Your task to perform on an android device: search for starred emails in the gmail app Image 0: 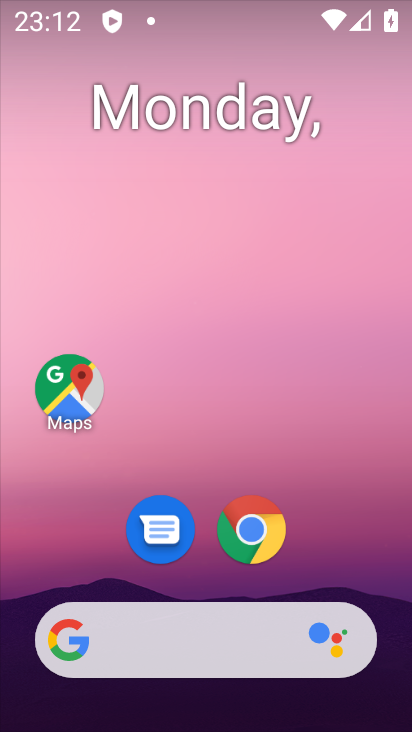
Step 0: drag from (327, 575) to (383, 51)
Your task to perform on an android device: search for starred emails in the gmail app Image 1: 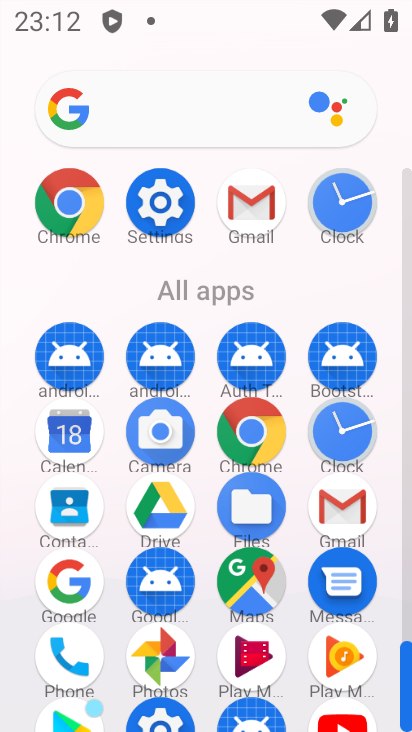
Step 1: click (253, 198)
Your task to perform on an android device: search for starred emails in the gmail app Image 2: 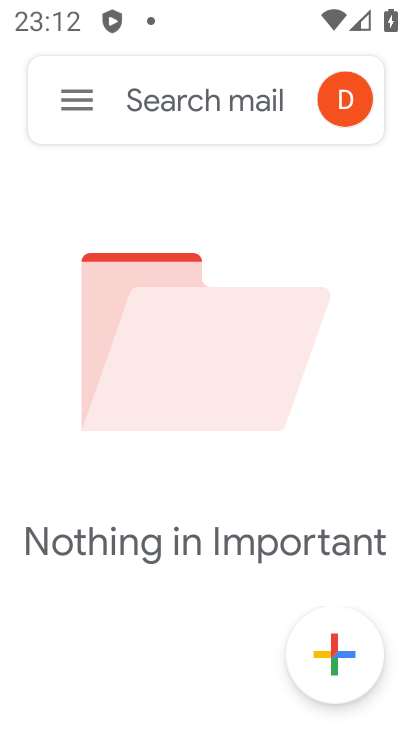
Step 2: click (73, 92)
Your task to perform on an android device: search for starred emails in the gmail app Image 3: 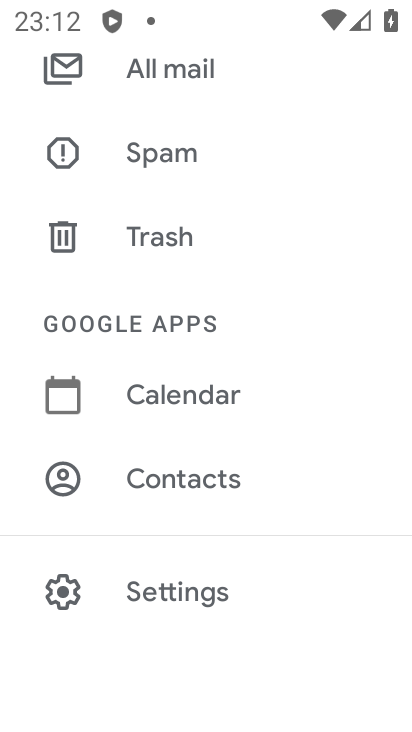
Step 3: drag from (158, 196) to (172, 333)
Your task to perform on an android device: search for starred emails in the gmail app Image 4: 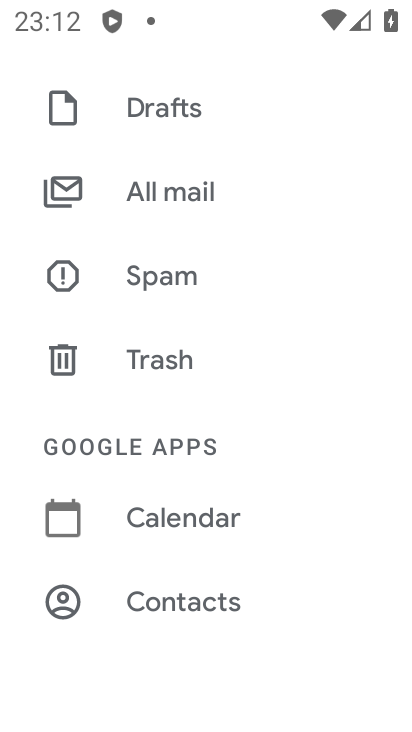
Step 4: drag from (146, 233) to (170, 330)
Your task to perform on an android device: search for starred emails in the gmail app Image 5: 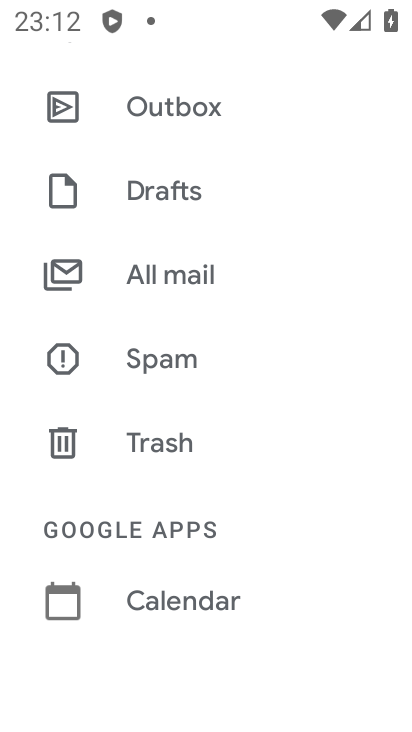
Step 5: drag from (168, 249) to (183, 338)
Your task to perform on an android device: search for starred emails in the gmail app Image 6: 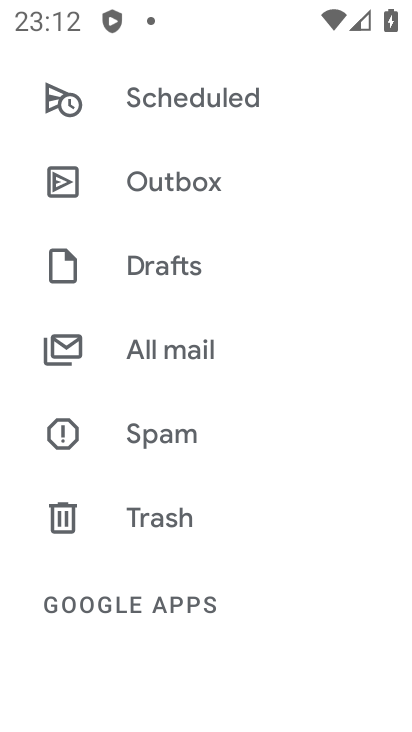
Step 6: drag from (202, 230) to (228, 336)
Your task to perform on an android device: search for starred emails in the gmail app Image 7: 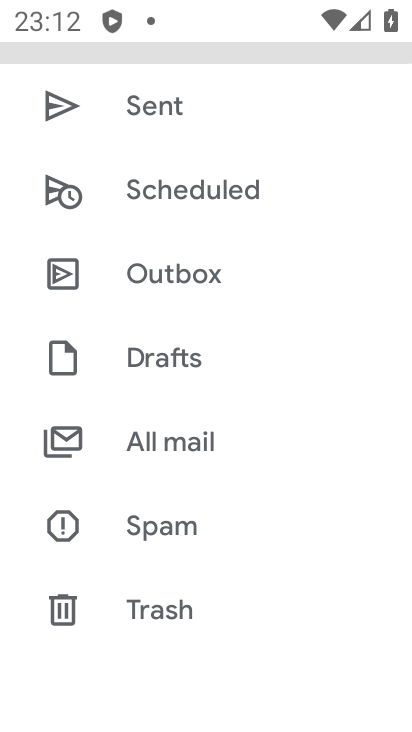
Step 7: drag from (215, 285) to (238, 367)
Your task to perform on an android device: search for starred emails in the gmail app Image 8: 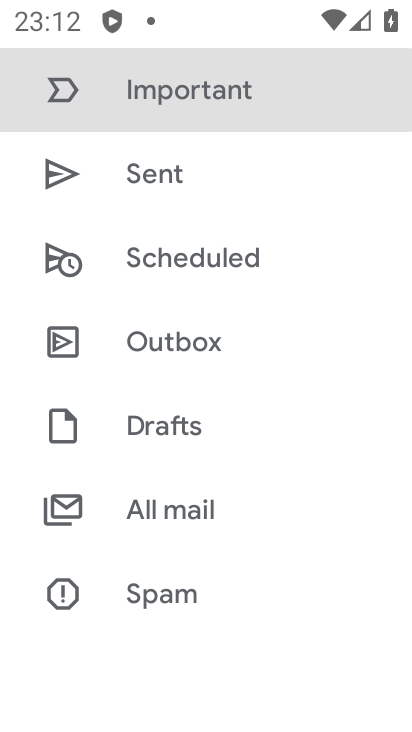
Step 8: drag from (225, 264) to (211, 370)
Your task to perform on an android device: search for starred emails in the gmail app Image 9: 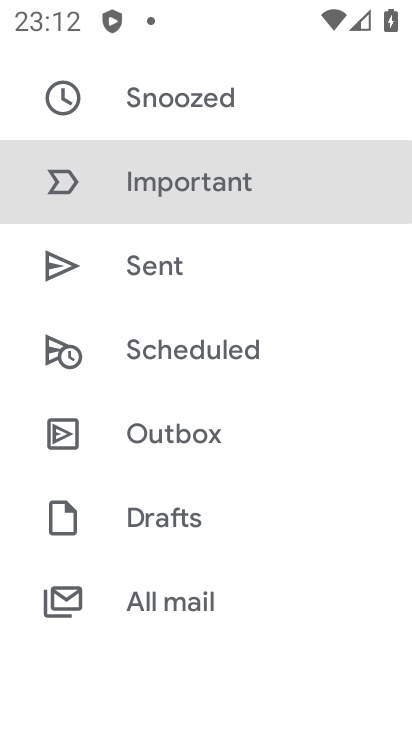
Step 9: drag from (207, 208) to (213, 268)
Your task to perform on an android device: search for starred emails in the gmail app Image 10: 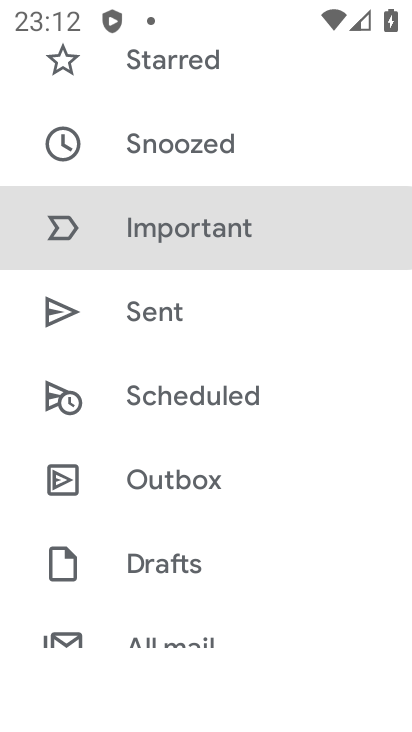
Step 10: click (223, 68)
Your task to perform on an android device: search for starred emails in the gmail app Image 11: 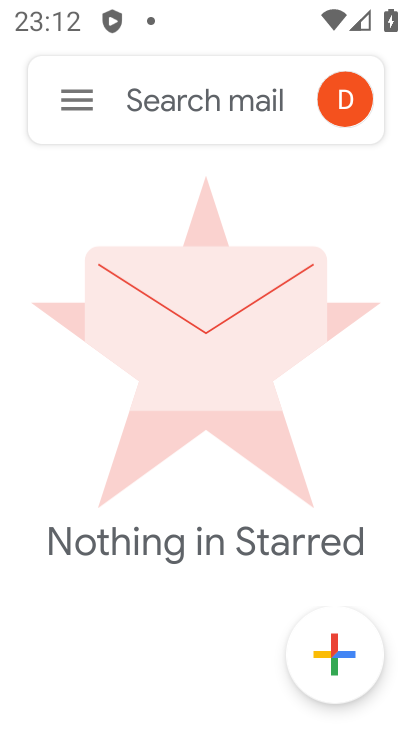
Step 11: task complete